Your task to perform on an android device: turn on the 24-hour format for clock Image 0: 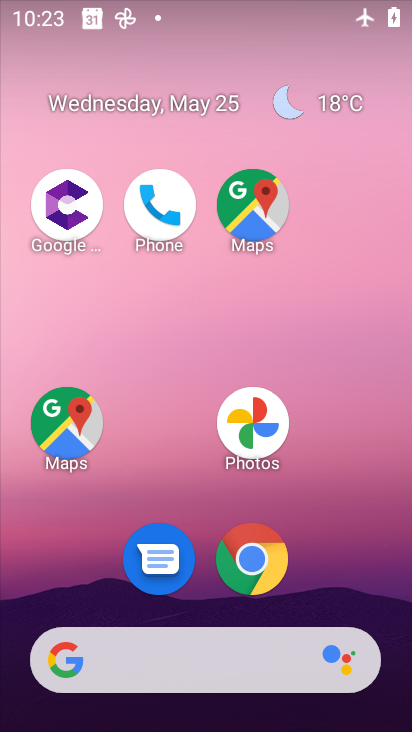
Step 0: drag from (328, 537) to (313, 110)
Your task to perform on an android device: turn on the 24-hour format for clock Image 1: 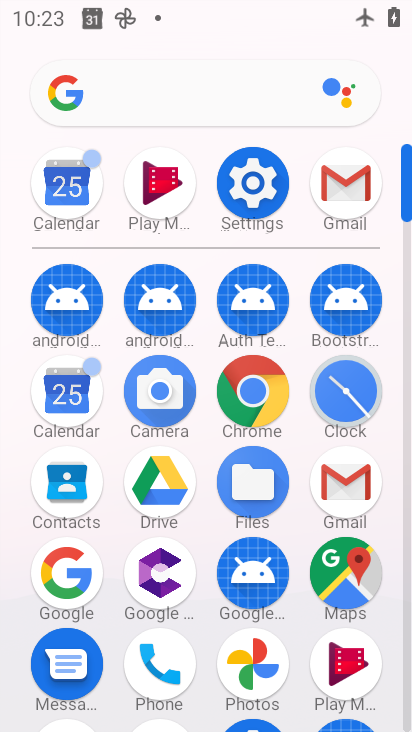
Step 1: click (355, 392)
Your task to perform on an android device: turn on the 24-hour format for clock Image 2: 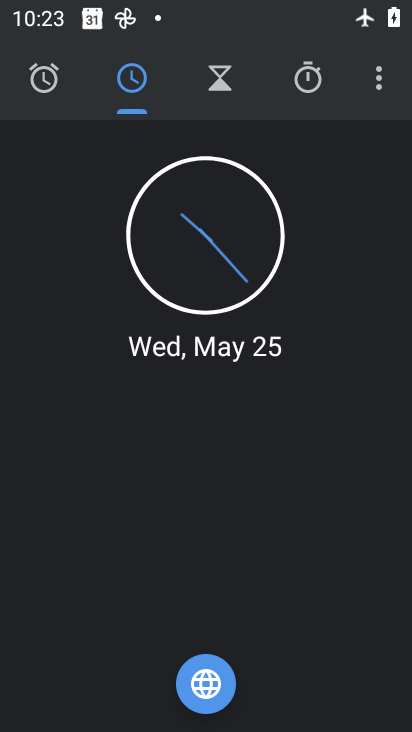
Step 2: click (388, 79)
Your task to perform on an android device: turn on the 24-hour format for clock Image 3: 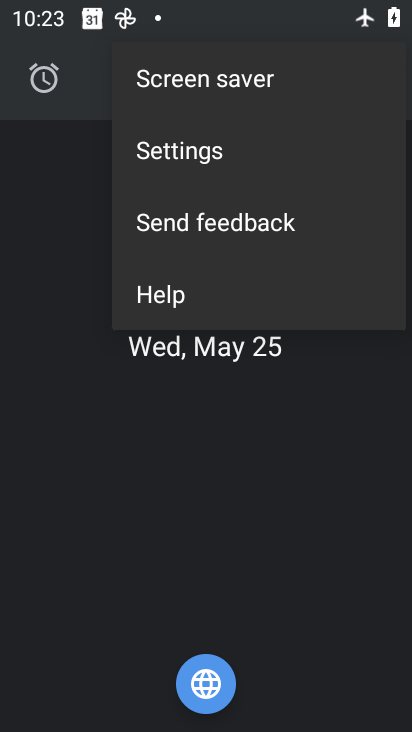
Step 3: click (211, 149)
Your task to perform on an android device: turn on the 24-hour format for clock Image 4: 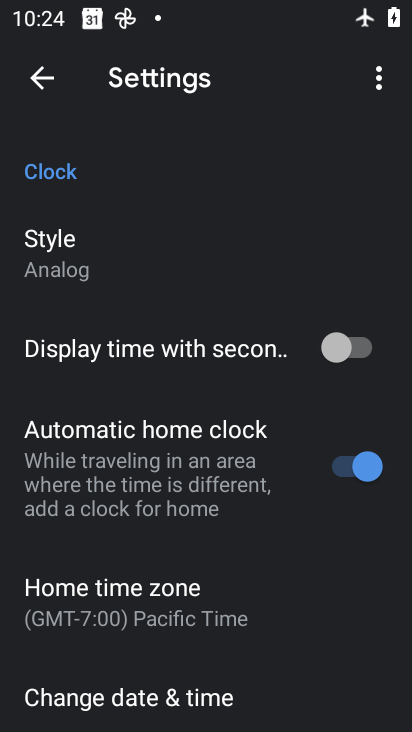
Step 4: click (193, 693)
Your task to perform on an android device: turn on the 24-hour format for clock Image 5: 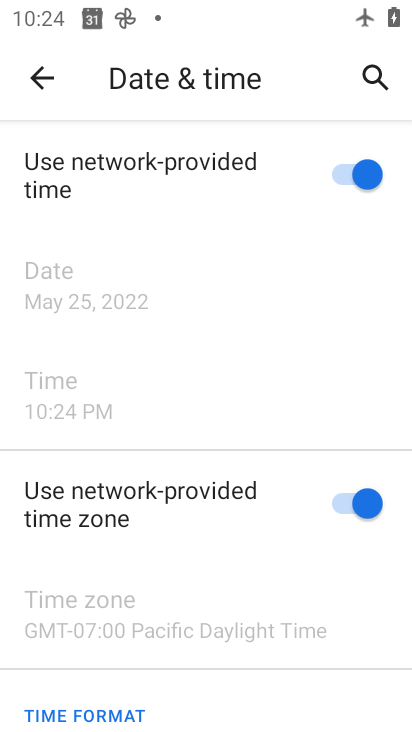
Step 5: drag from (277, 651) to (287, 264)
Your task to perform on an android device: turn on the 24-hour format for clock Image 6: 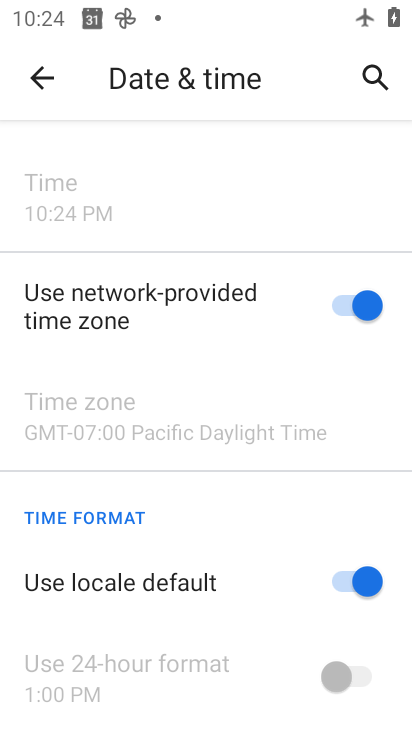
Step 6: click (344, 581)
Your task to perform on an android device: turn on the 24-hour format for clock Image 7: 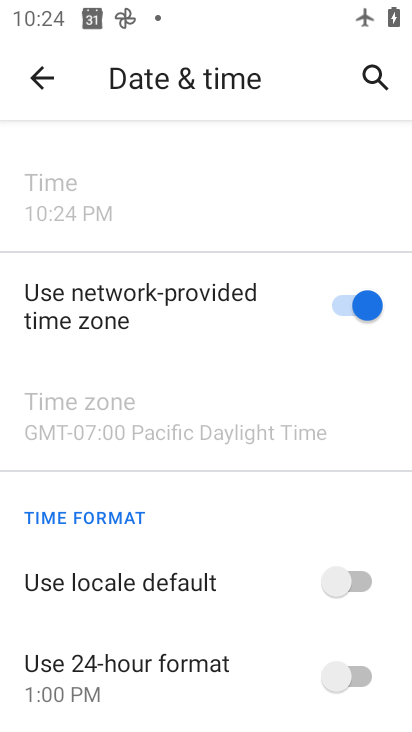
Step 7: click (364, 674)
Your task to perform on an android device: turn on the 24-hour format for clock Image 8: 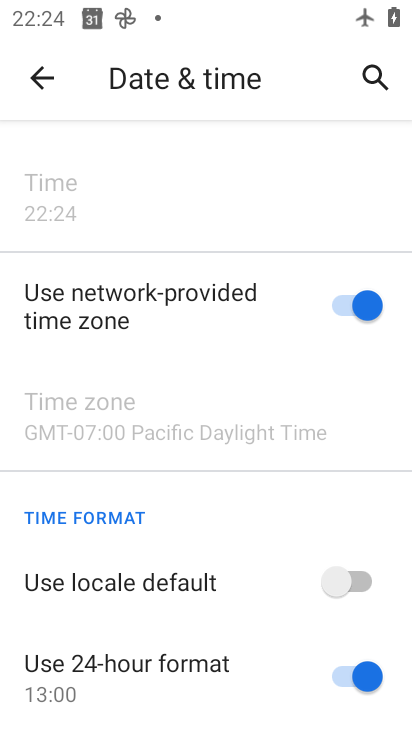
Step 8: task complete